Your task to perform on an android device: manage bookmarks in the chrome app Image 0: 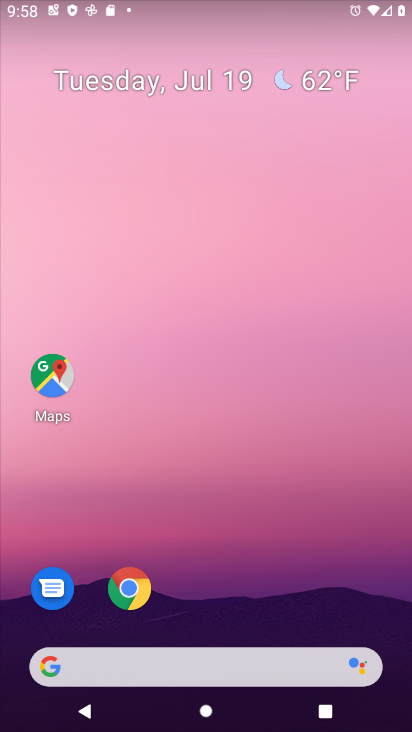
Step 0: drag from (222, 548) to (123, 3)
Your task to perform on an android device: manage bookmarks in the chrome app Image 1: 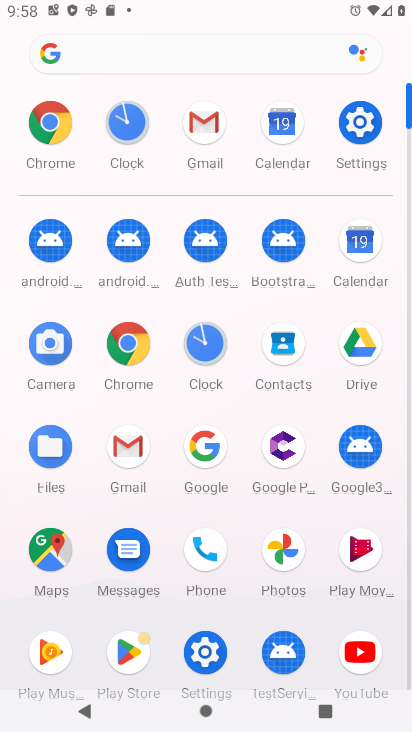
Step 1: click (18, 124)
Your task to perform on an android device: manage bookmarks in the chrome app Image 2: 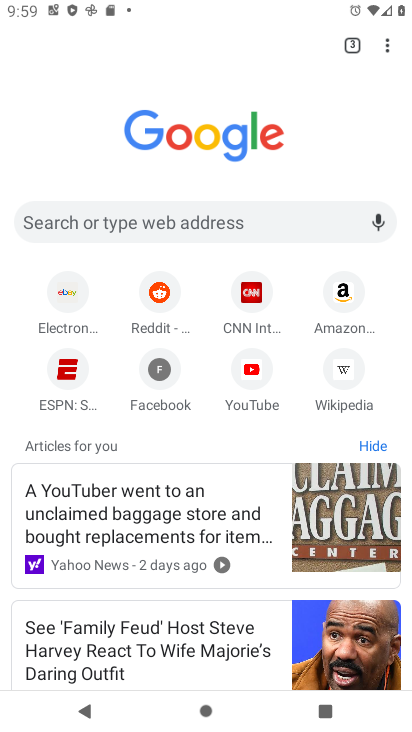
Step 2: drag from (390, 39) to (263, 187)
Your task to perform on an android device: manage bookmarks in the chrome app Image 3: 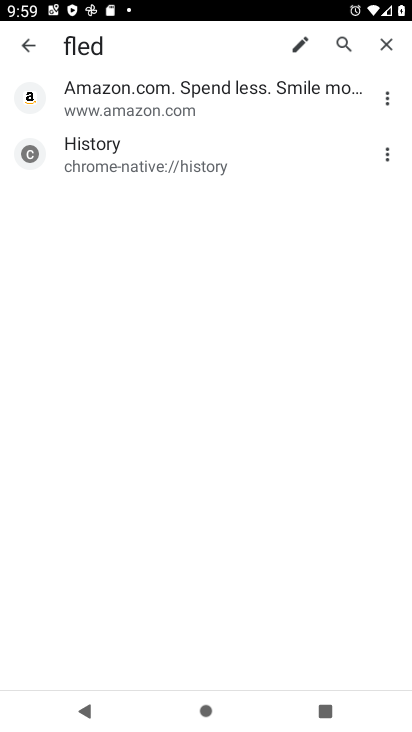
Step 3: click (392, 104)
Your task to perform on an android device: manage bookmarks in the chrome app Image 4: 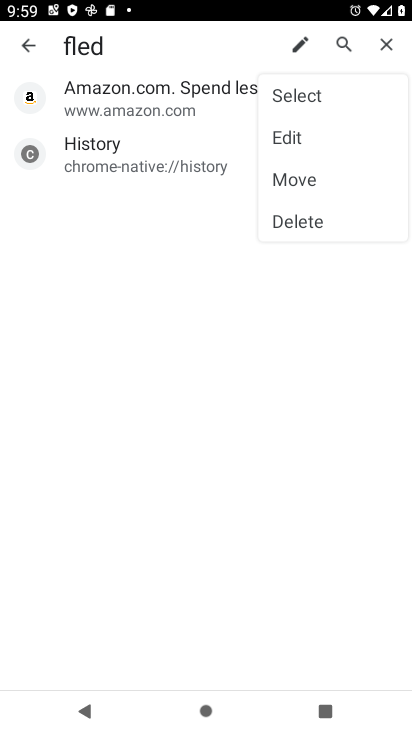
Step 4: click (285, 228)
Your task to perform on an android device: manage bookmarks in the chrome app Image 5: 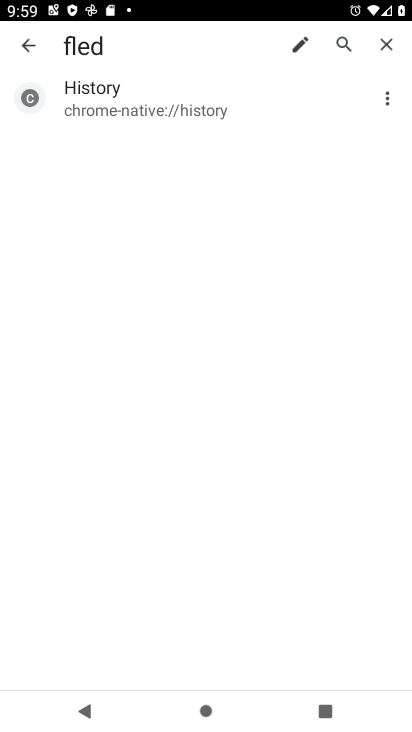
Step 5: task complete